Your task to perform on an android device: make emails show in primary in the gmail app Image 0: 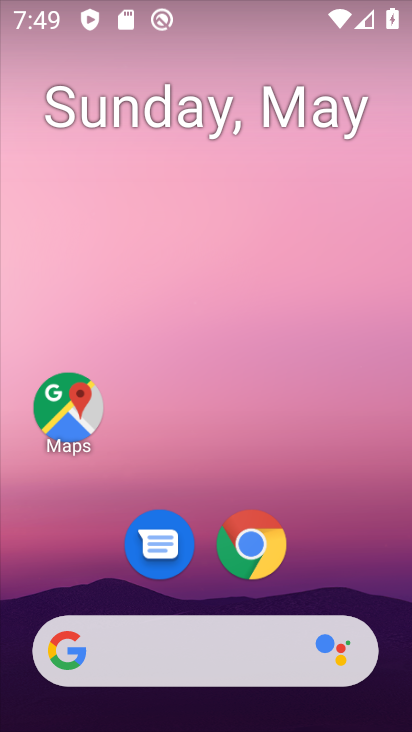
Step 0: drag from (359, 552) to (283, 40)
Your task to perform on an android device: make emails show in primary in the gmail app Image 1: 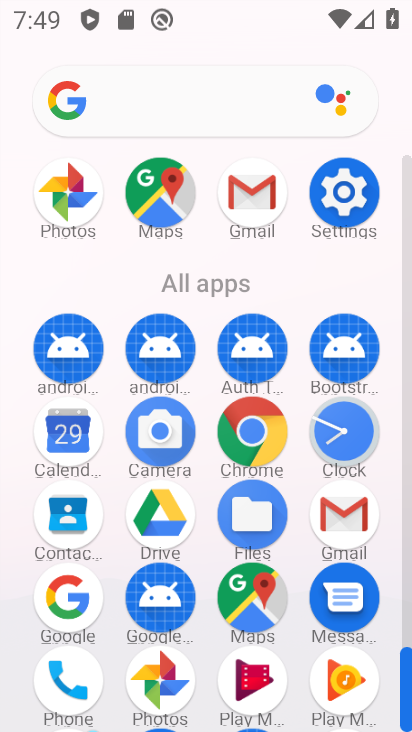
Step 1: click (340, 508)
Your task to perform on an android device: make emails show in primary in the gmail app Image 2: 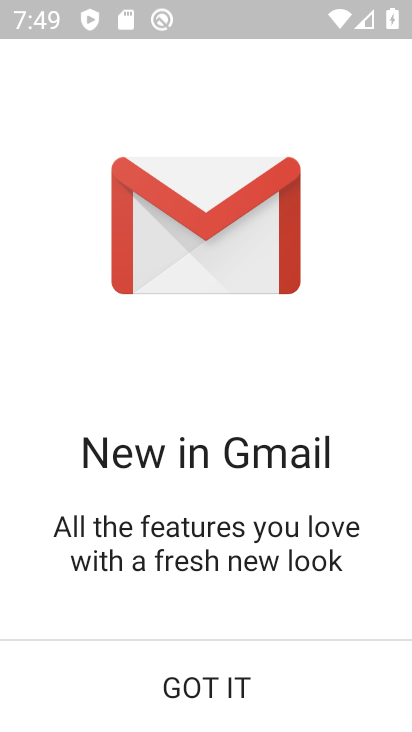
Step 2: click (180, 673)
Your task to perform on an android device: make emails show in primary in the gmail app Image 3: 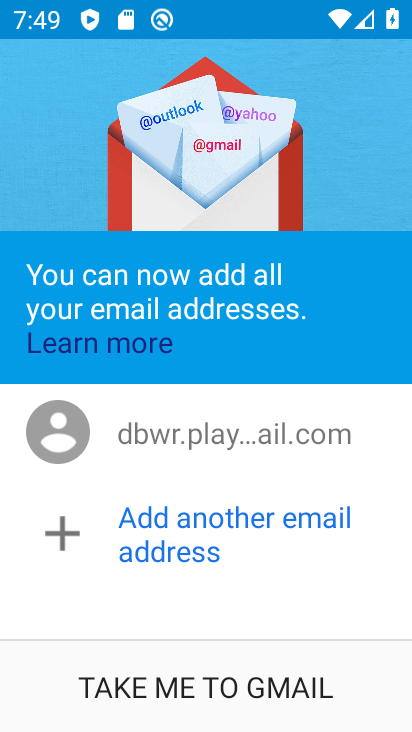
Step 3: click (178, 674)
Your task to perform on an android device: make emails show in primary in the gmail app Image 4: 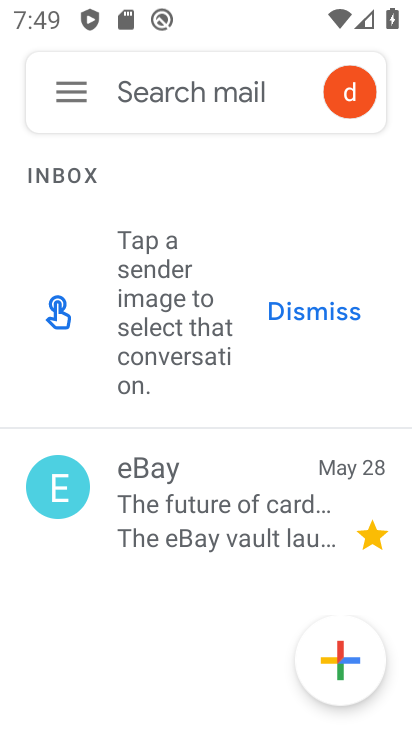
Step 4: click (64, 97)
Your task to perform on an android device: make emails show in primary in the gmail app Image 5: 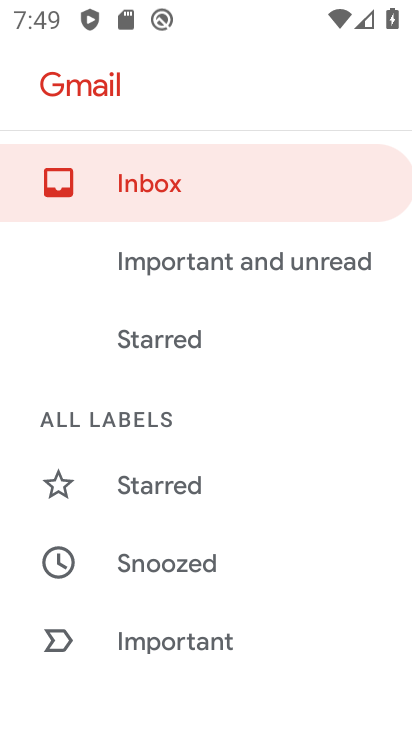
Step 5: drag from (233, 605) to (235, 208)
Your task to perform on an android device: make emails show in primary in the gmail app Image 6: 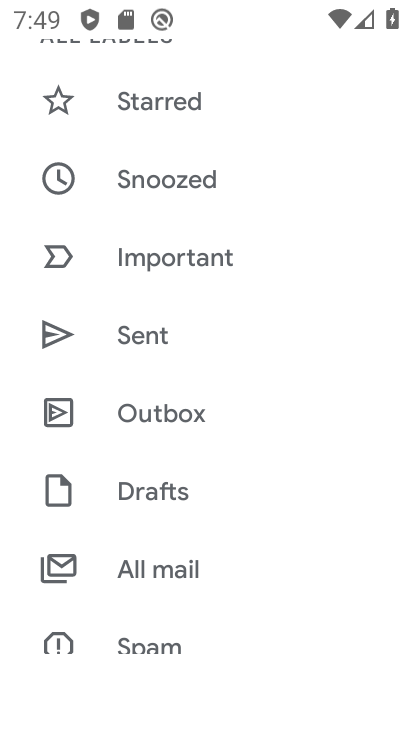
Step 6: drag from (188, 665) to (233, 178)
Your task to perform on an android device: make emails show in primary in the gmail app Image 7: 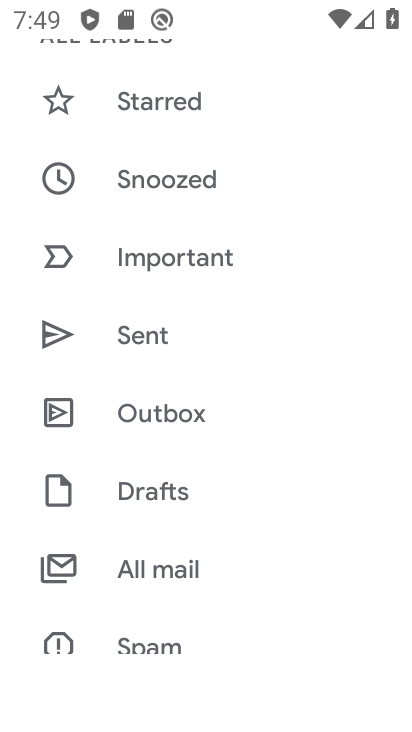
Step 7: drag from (228, 518) to (234, 202)
Your task to perform on an android device: make emails show in primary in the gmail app Image 8: 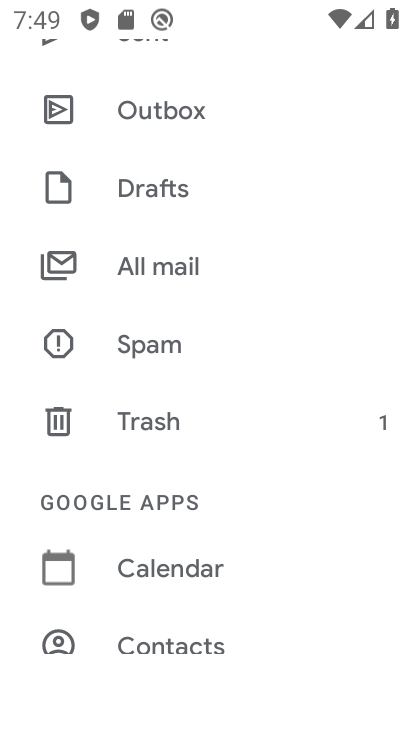
Step 8: drag from (191, 561) to (234, 126)
Your task to perform on an android device: make emails show in primary in the gmail app Image 9: 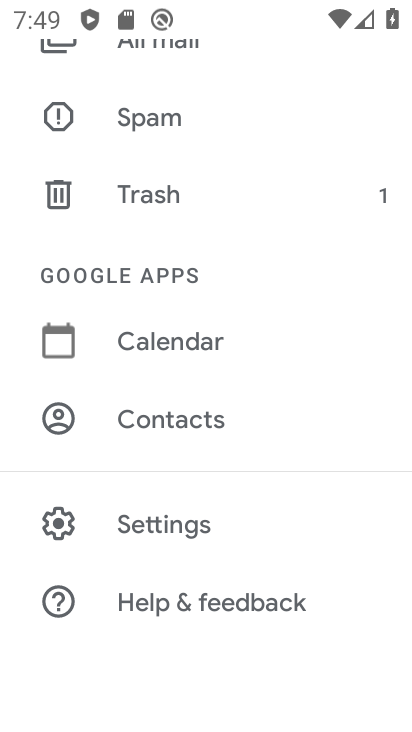
Step 9: click (141, 524)
Your task to perform on an android device: make emails show in primary in the gmail app Image 10: 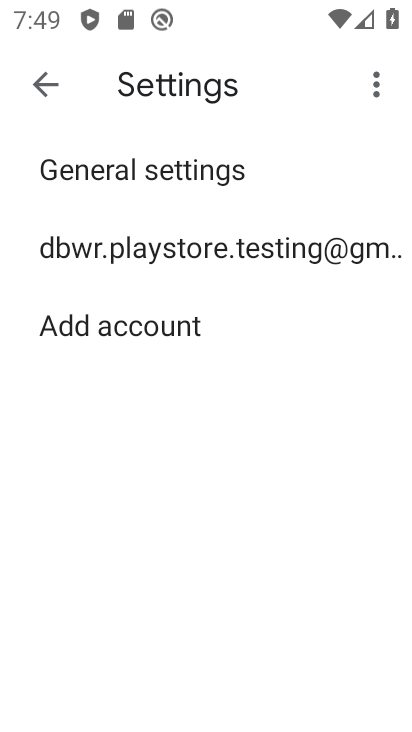
Step 10: click (188, 249)
Your task to perform on an android device: make emails show in primary in the gmail app Image 11: 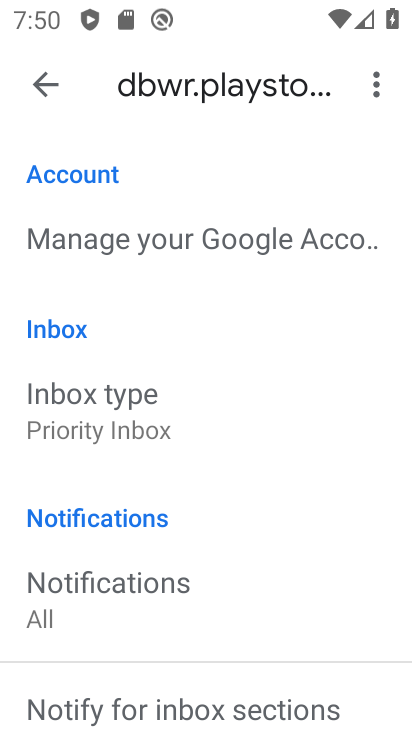
Step 11: click (151, 413)
Your task to perform on an android device: make emails show in primary in the gmail app Image 12: 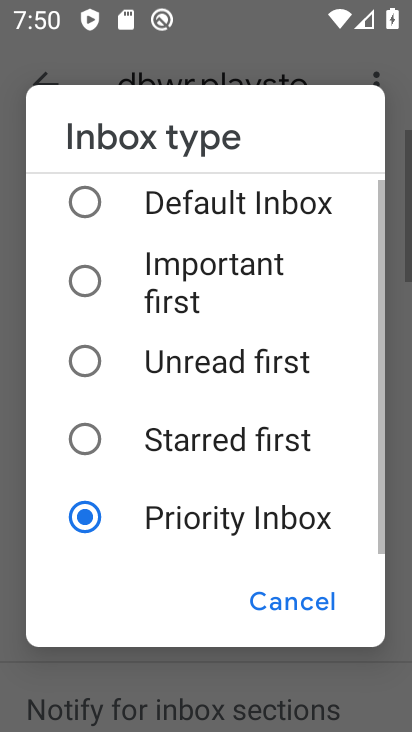
Step 12: click (203, 189)
Your task to perform on an android device: make emails show in primary in the gmail app Image 13: 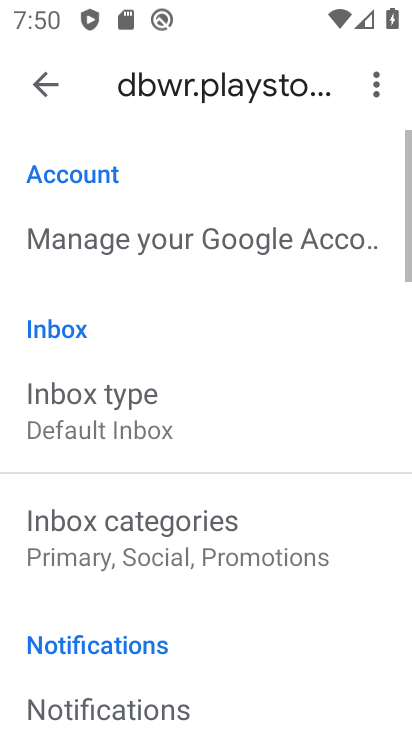
Step 13: click (159, 563)
Your task to perform on an android device: make emails show in primary in the gmail app Image 14: 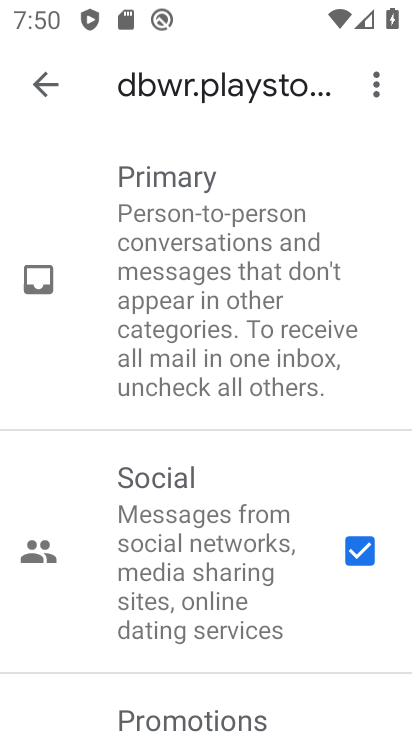
Step 14: drag from (206, 485) to (266, 62)
Your task to perform on an android device: make emails show in primary in the gmail app Image 15: 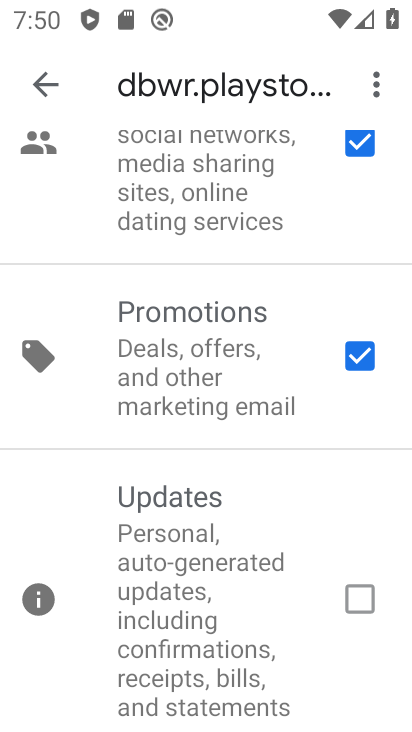
Step 15: click (360, 154)
Your task to perform on an android device: make emails show in primary in the gmail app Image 16: 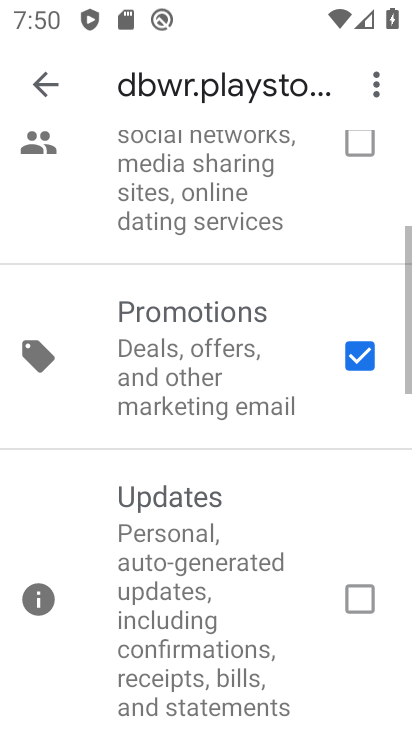
Step 16: click (356, 347)
Your task to perform on an android device: make emails show in primary in the gmail app Image 17: 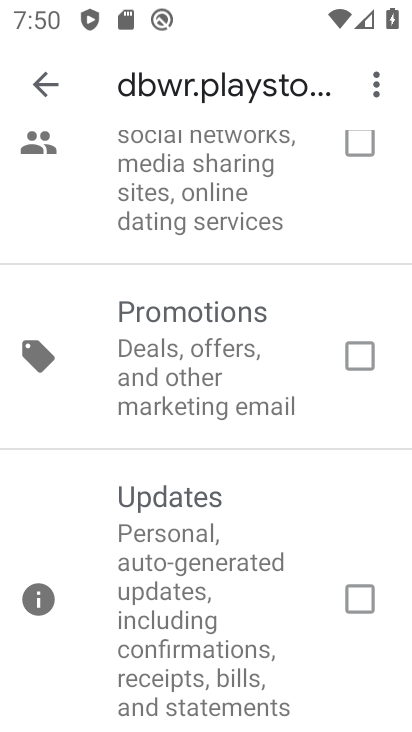
Step 17: drag from (207, 255) to (207, 593)
Your task to perform on an android device: make emails show in primary in the gmail app Image 18: 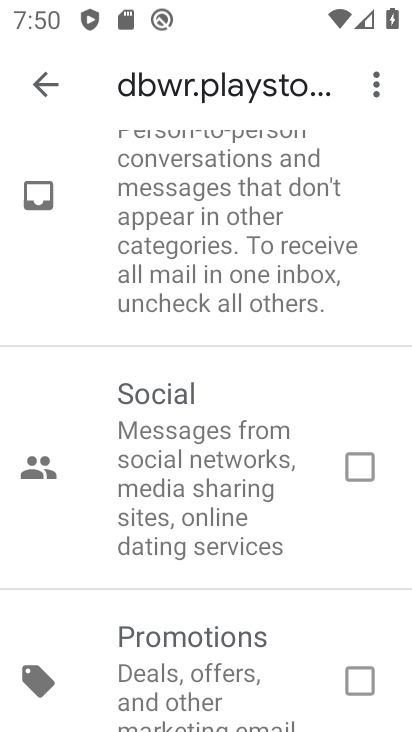
Step 18: drag from (239, 174) to (239, 558)
Your task to perform on an android device: make emails show in primary in the gmail app Image 19: 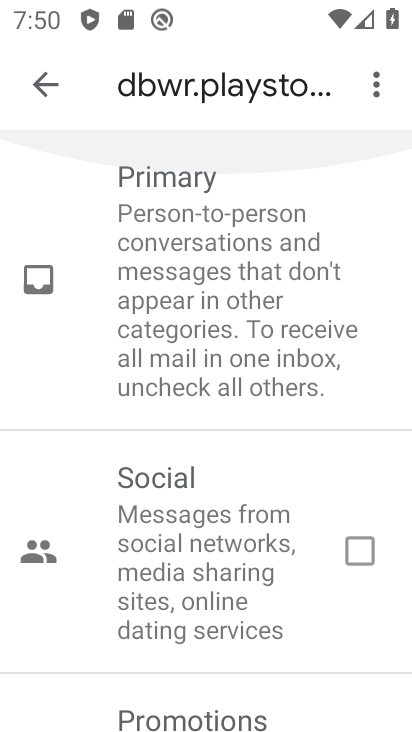
Step 19: drag from (220, 518) to (253, 140)
Your task to perform on an android device: make emails show in primary in the gmail app Image 20: 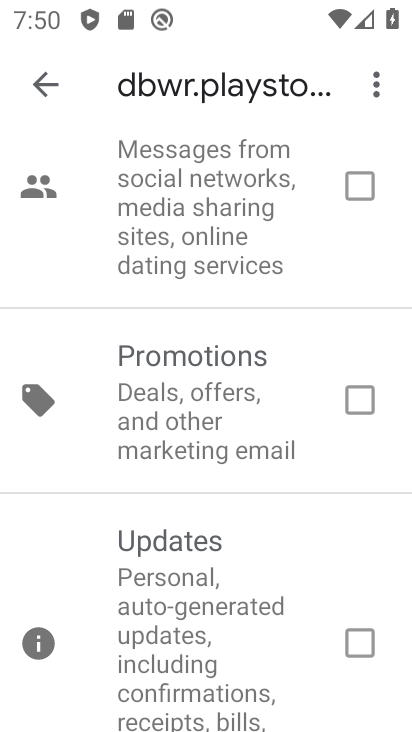
Step 20: click (35, 77)
Your task to perform on an android device: make emails show in primary in the gmail app Image 21: 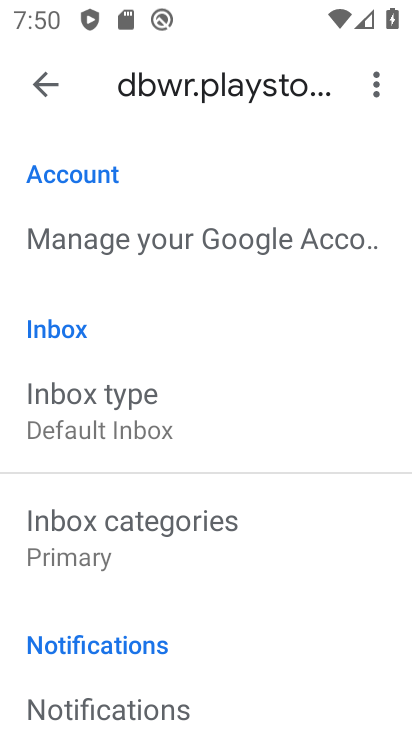
Step 21: task complete